Your task to perform on an android device: Is it going to rain this weekend? Image 0: 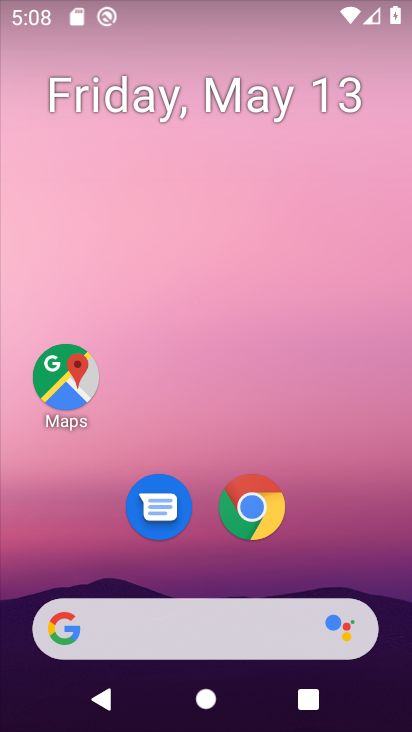
Step 0: drag from (336, 537) to (230, 61)
Your task to perform on an android device: Is it going to rain this weekend? Image 1: 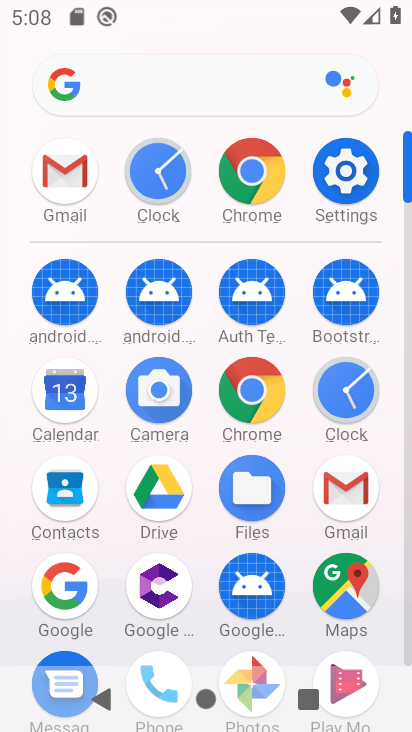
Step 1: click (64, 582)
Your task to perform on an android device: Is it going to rain this weekend? Image 2: 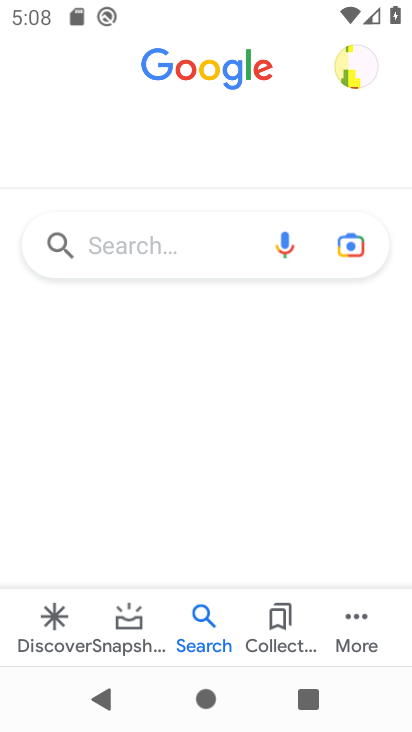
Step 2: click (153, 253)
Your task to perform on an android device: Is it going to rain this weekend? Image 3: 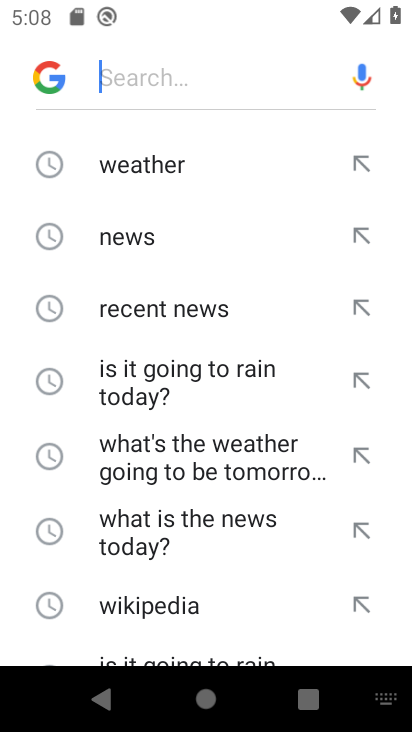
Step 3: click (132, 167)
Your task to perform on an android device: Is it going to rain this weekend? Image 4: 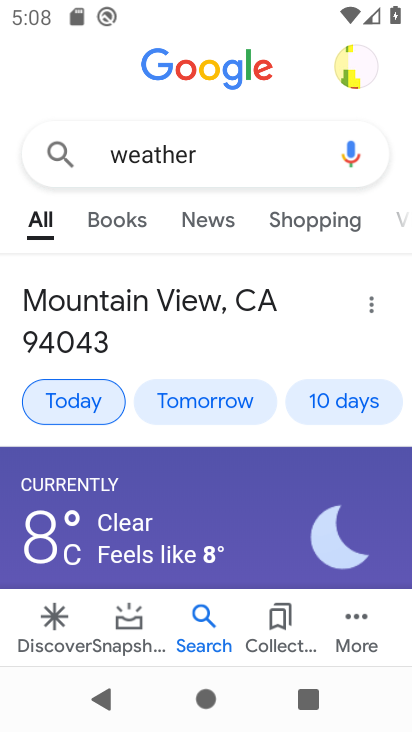
Step 4: drag from (202, 548) to (181, 449)
Your task to perform on an android device: Is it going to rain this weekend? Image 5: 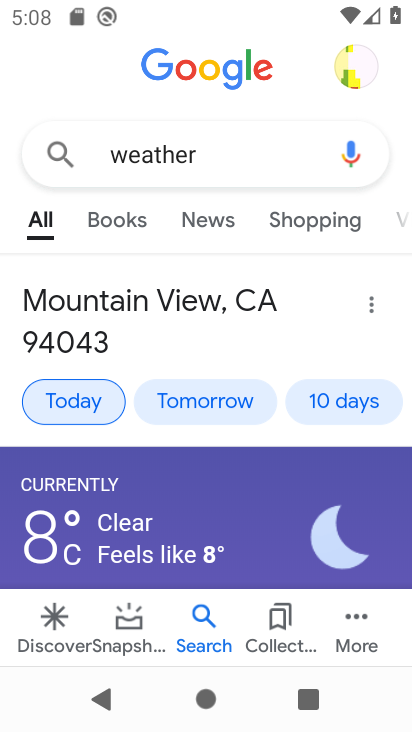
Step 5: click (344, 383)
Your task to perform on an android device: Is it going to rain this weekend? Image 6: 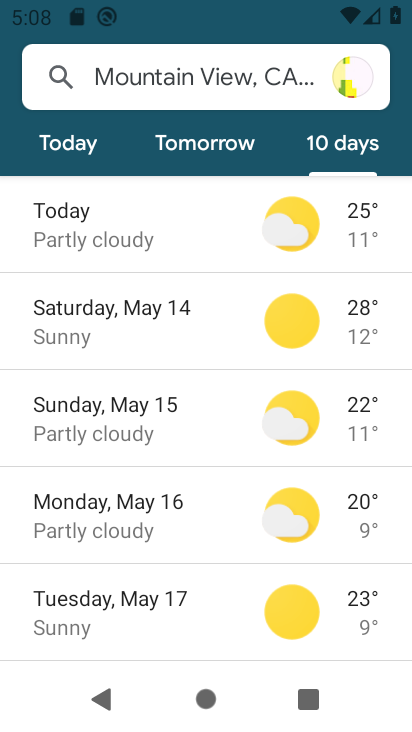
Step 6: task complete